Your task to perform on an android device: delete browsing data in the chrome app Image 0: 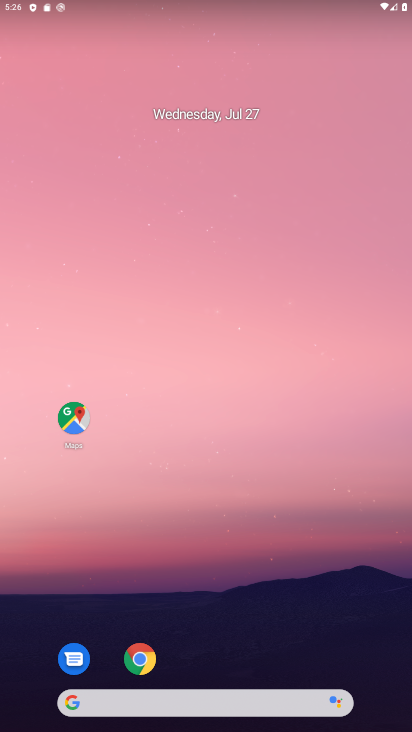
Step 0: drag from (256, 622) to (302, 123)
Your task to perform on an android device: delete browsing data in the chrome app Image 1: 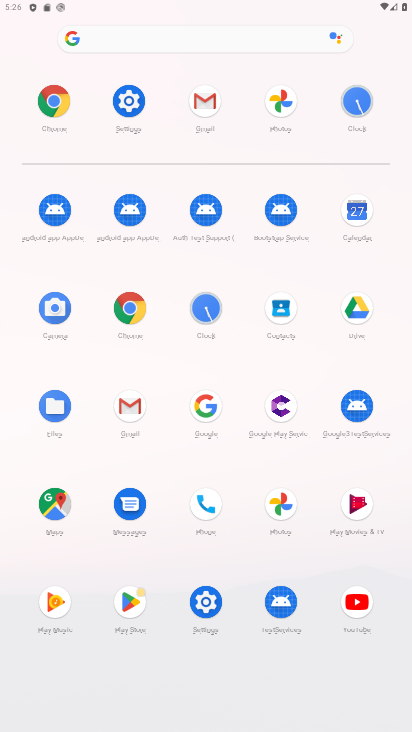
Step 1: click (135, 297)
Your task to perform on an android device: delete browsing data in the chrome app Image 2: 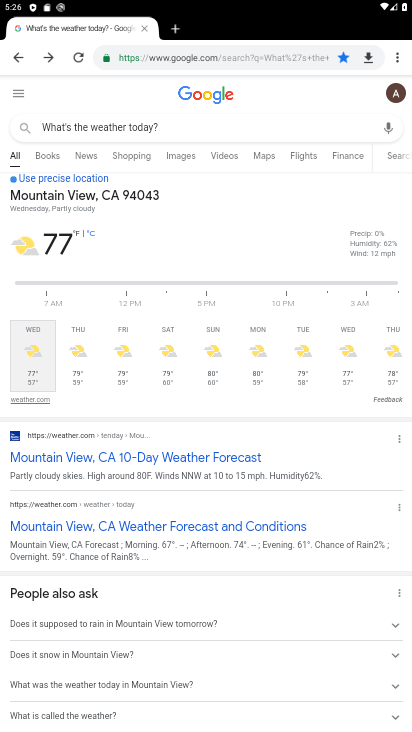
Step 2: drag from (398, 61) to (289, 340)
Your task to perform on an android device: delete browsing data in the chrome app Image 3: 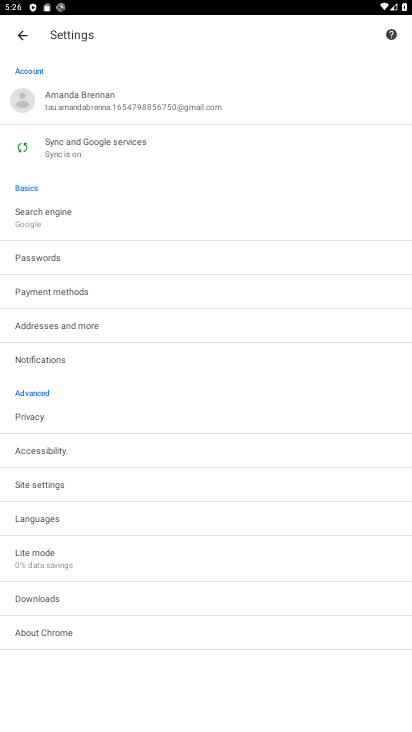
Step 3: click (16, 414)
Your task to perform on an android device: delete browsing data in the chrome app Image 4: 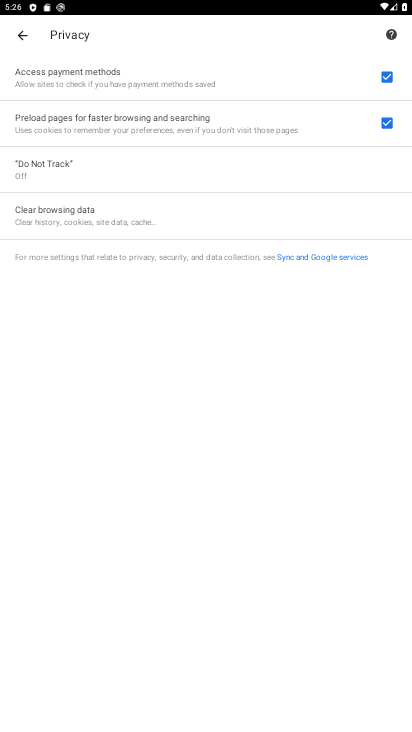
Step 4: click (66, 212)
Your task to perform on an android device: delete browsing data in the chrome app Image 5: 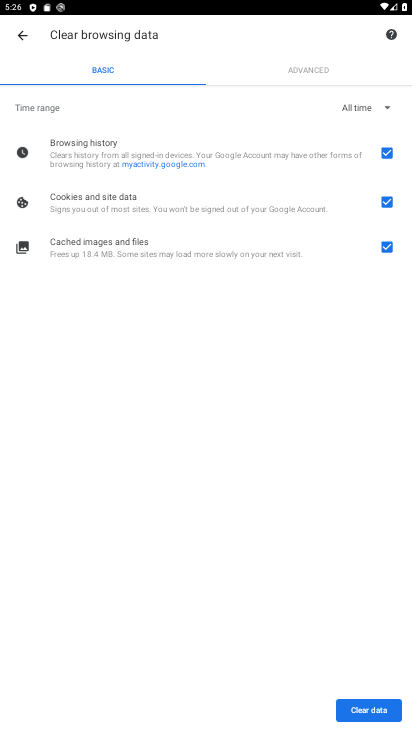
Step 5: click (368, 707)
Your task to perform on an android device: delete browsing data in the chrome app Image 6: 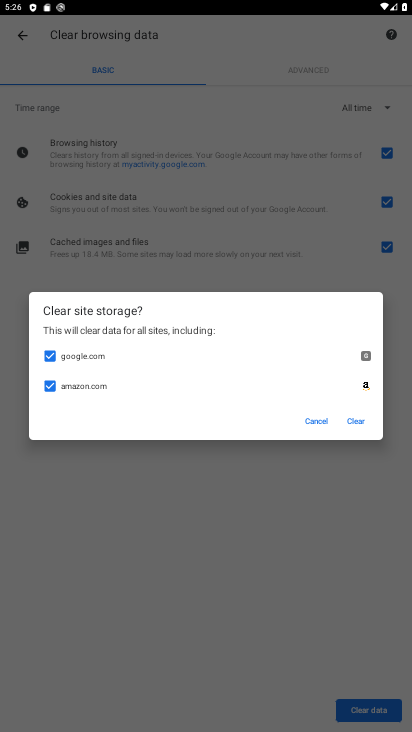
Step 6: click (351, 415)
Your task to perform on an android device: delete browsing data in the chrome app Image 7: 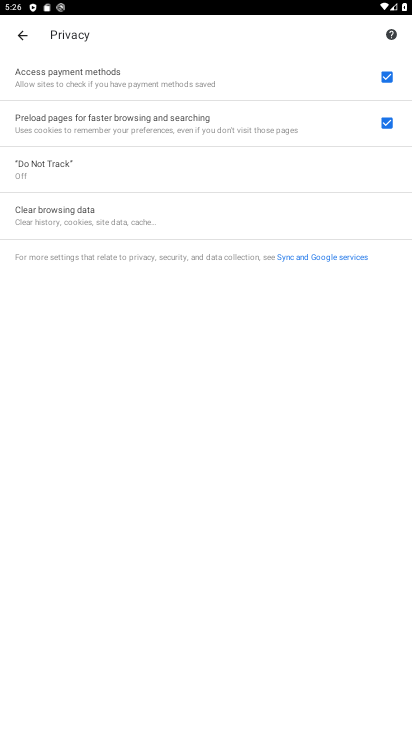
Step 7: task complete